Your task to perform on an android device: change the upload size in google photos Image 0: 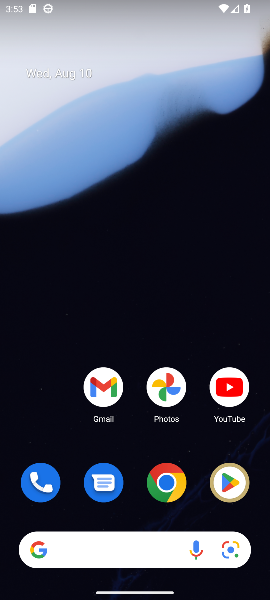
Step 0: drag from (204, 509) to (258, 57)
Your task to perform on an android device: change the upload size in google photos Image 1: 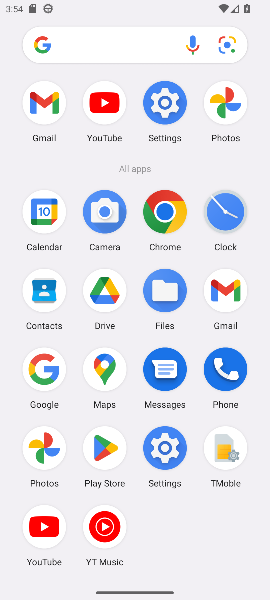
Step 1: click (40, 449)
Your task to perform on an android device: change the upload size in google photos Image 2: 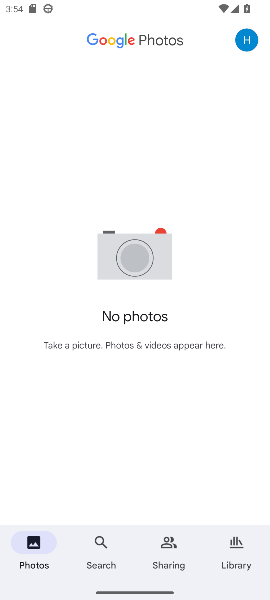
Step 2: click (242, 41)
Your task to perform on an android device: change the upload size in google photos Image 3: 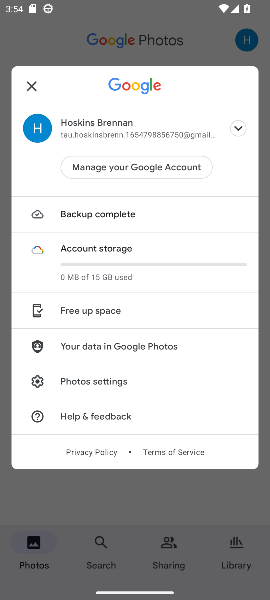
Step 3: click (99, 375)
Your task to perform on an android device: change the upload size in google photos Image 4: 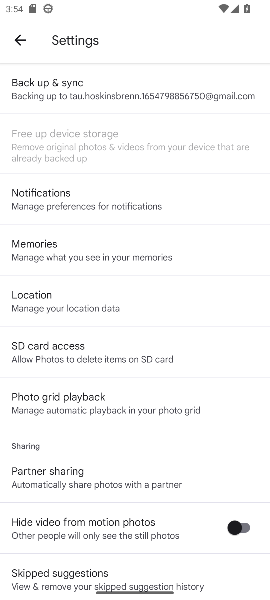
Step 4: click (79, 90)
Your task to perform on an android device: change the upload size in google photos Image 5: 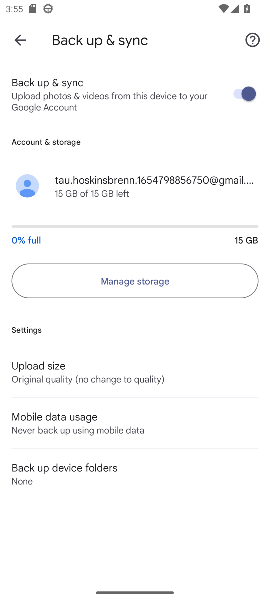
Step 5: click (94, 377)
Your task to perform on an android device: change the upload size in google photos Image 6: 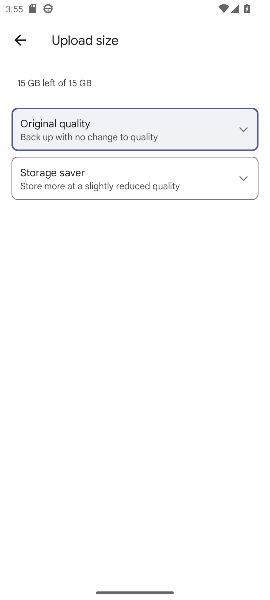
Step 6: click (44, 182)
Your task to perform on an android device: change the upload size in google photos Image 7: 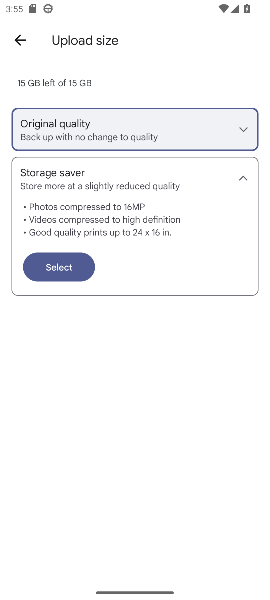
Step 7: click (63, 254)
Your task to perform on an android device: change the upload size in google photos Image 8: 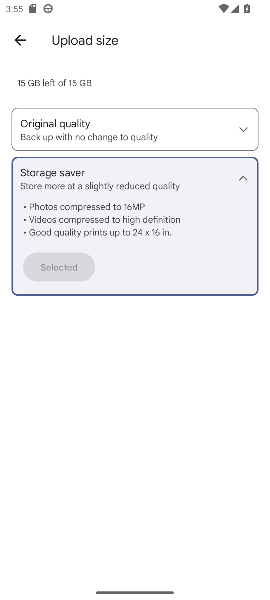
Step 8: task complete